Your task to perform on an android device: turn on priority inbox in the gmail app Image 0: 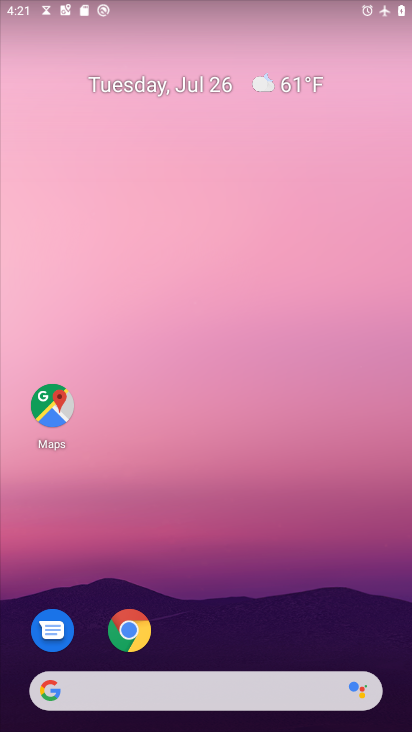
Step 0: drag from (277, 551) to (238, 230)
Your task to perform on an android device: turn on priority inbox in the gmail app Image 1: 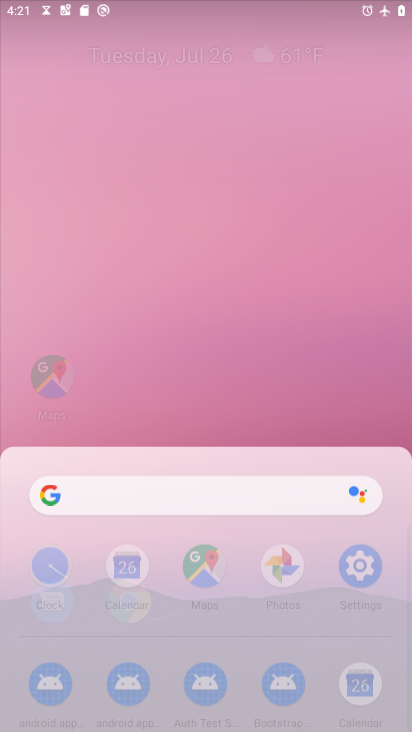
Step 1: drag from (234, 558) to (234, 142)
Your task to perform on an android device: turn on priority inbox in the gmail app Image 2: 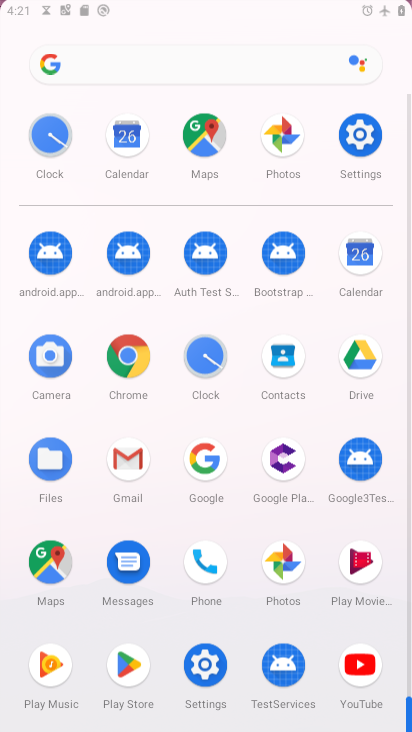
Step 2: drag from (229, 512) to (227, 62)
Your task to perform on an android device: turn on priority inbox in the gmail app Image 3: 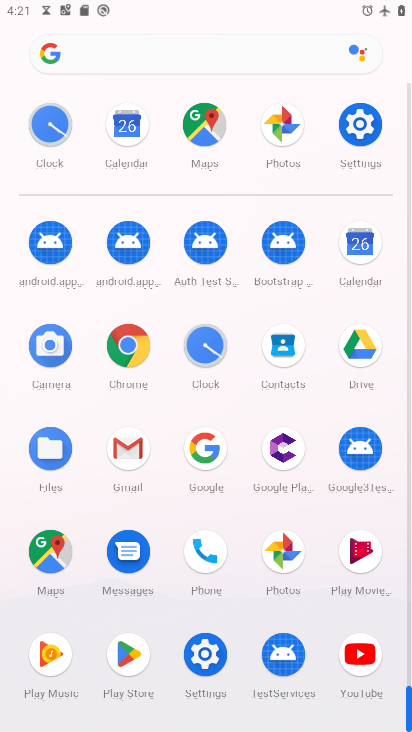
Step 3: click (114, 449)
Your task to perform on an android device: turn on priority inbox in the gmail app Image 4: 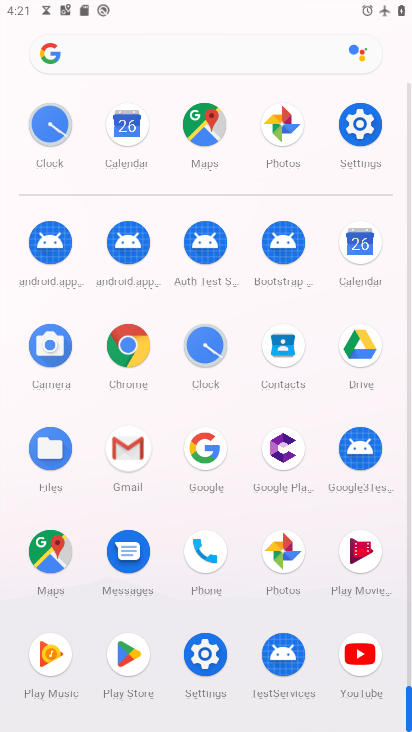
Step 4: click (114, 451)
Your task to perform on an android device: turn on priority inbox in the gmail app Image 5: 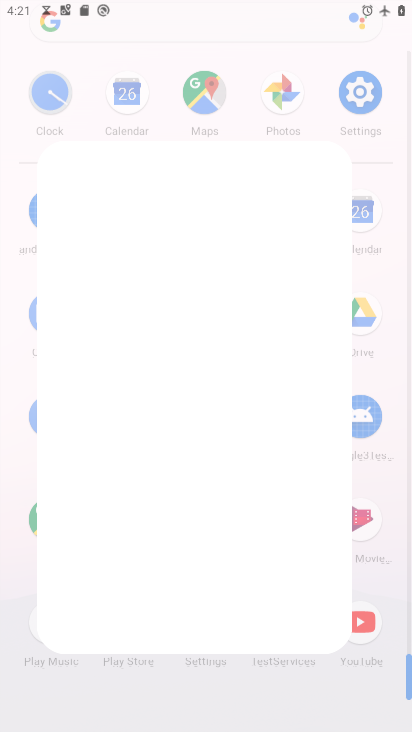
Step 5: click (115, 453)
Your task to perform on an android device: turn on priority inbox in the gmail app Image 6: 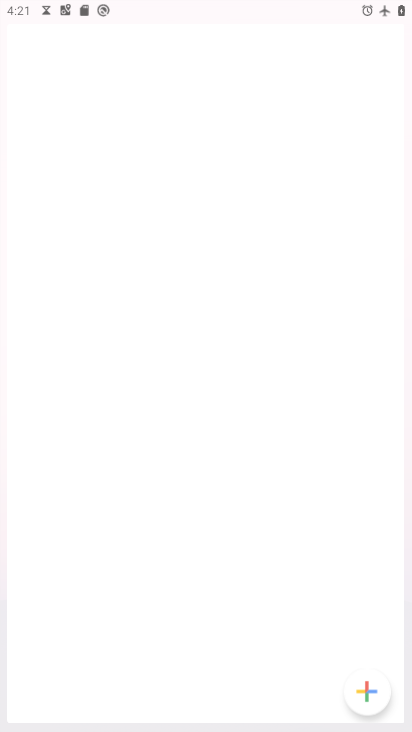
Step 6: click (117, 451)
Your task to perform on an android device: turn on priority inbox in the gmail app Image 7: 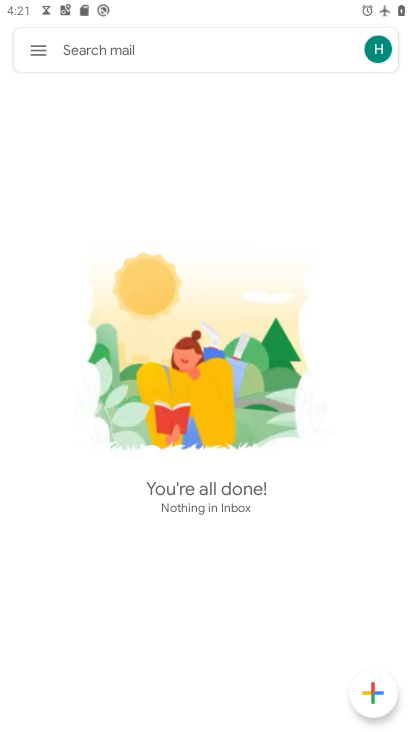
Step 7: click (42, 55)
Your task to perform on an android device: turn on priority inbox in the gmail app Image 8: 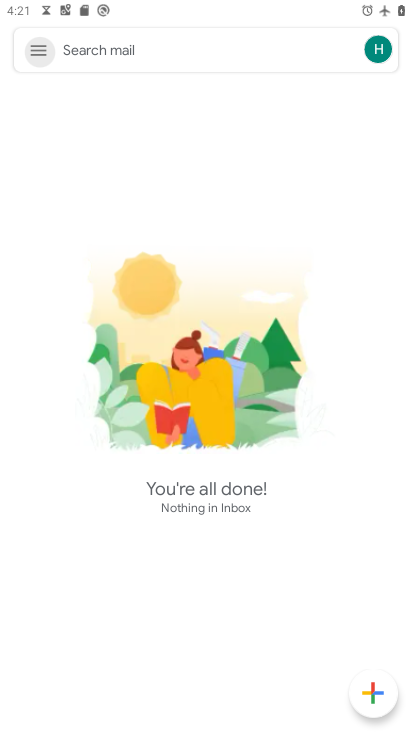
Step 8: click (41, 55)
Your task to perform on an android device: turn on priority inbox in the gmail app Image 9: 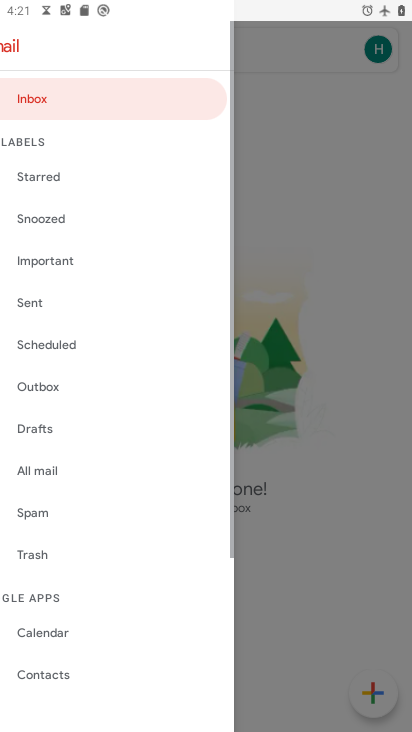
Step 9: click (41, 55)
Your task to perform on an android device: turn on priority inbox in the gmail app Image 10: 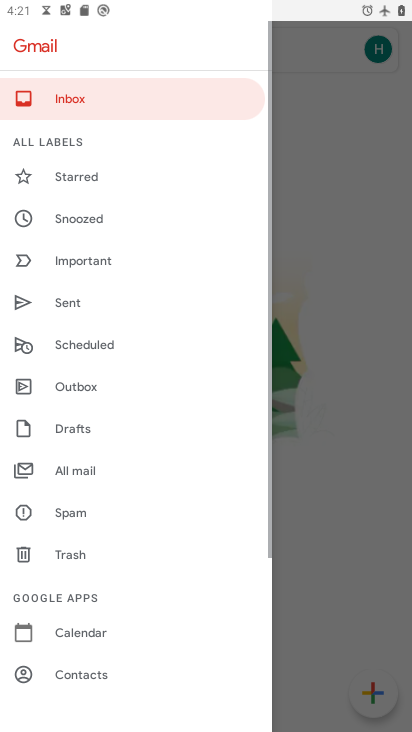
Step 10: click (42, 55)
Your task to perform on an android device: turn on priority inbox in the gmail app Image 11: 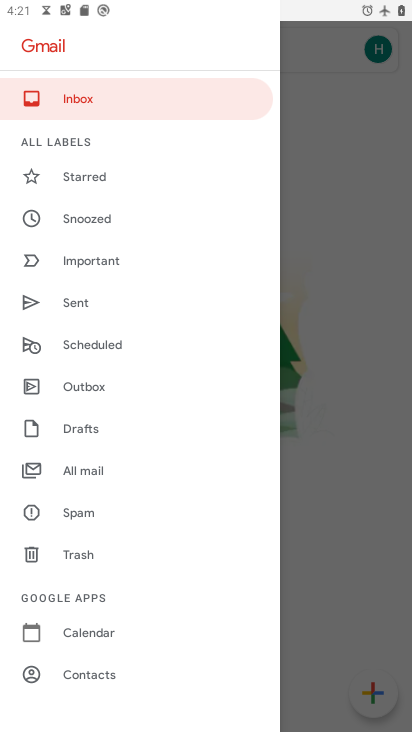
Step 11: drag from (126, 614) to (85, 171)
Your task to perform on an android device: turn on priority inbox in the gmail app Image 12: 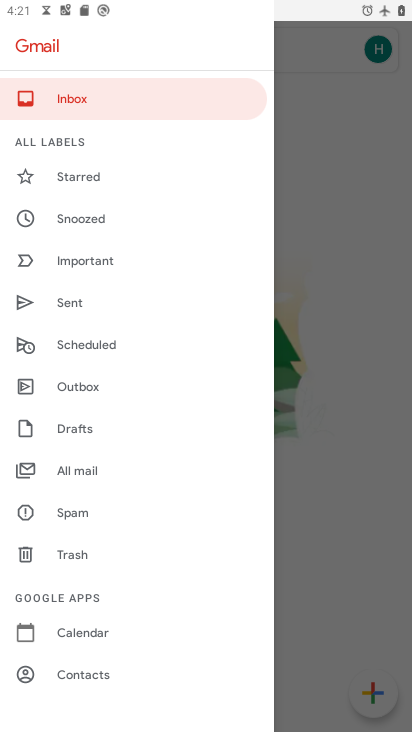
Step 12: drag from (120, 484) to (117, 221)
Your task to perform on an android device: turn on priority inbox in the gmail app Image 13: 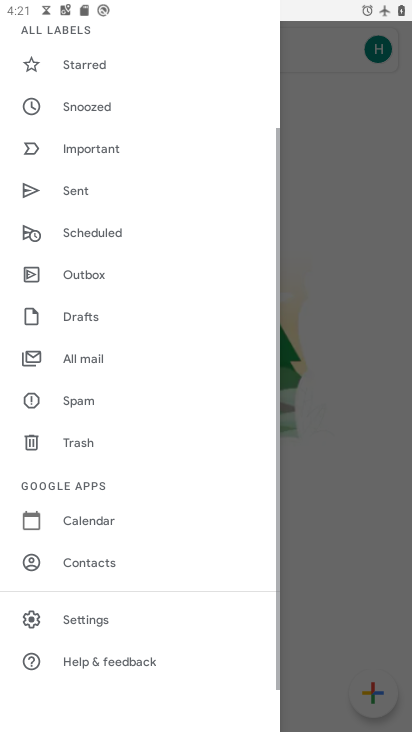
Step 13: drag from (151, 365) to (151, 117)
Your task to perform on an android device: turn on priority inbox in the gmail app Image 14: 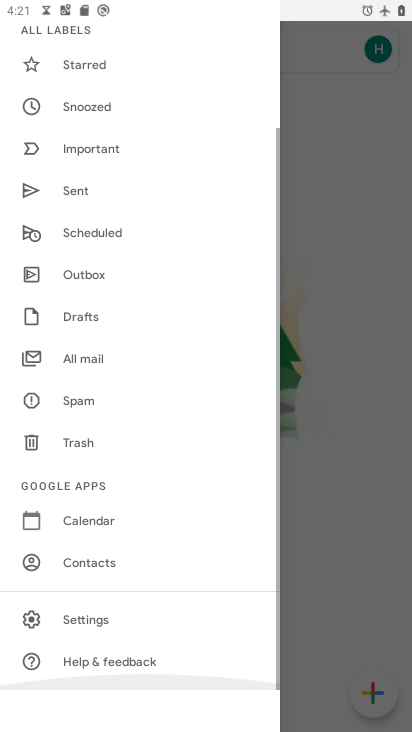
Step 14: drag from (136, 494) to (143, 185)
Your task to perform on an android device: turn on priority inbox in the gmail app Image 15: 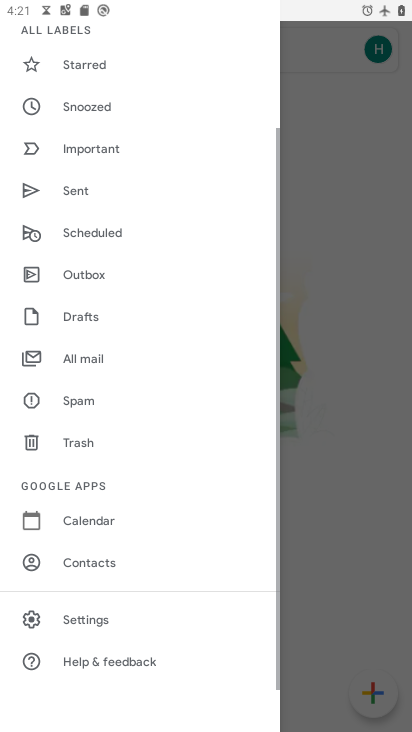
Step 15: click (86, 605)
Your task to perform on an android device: turn on priority inbox in the gmail app Image 16: 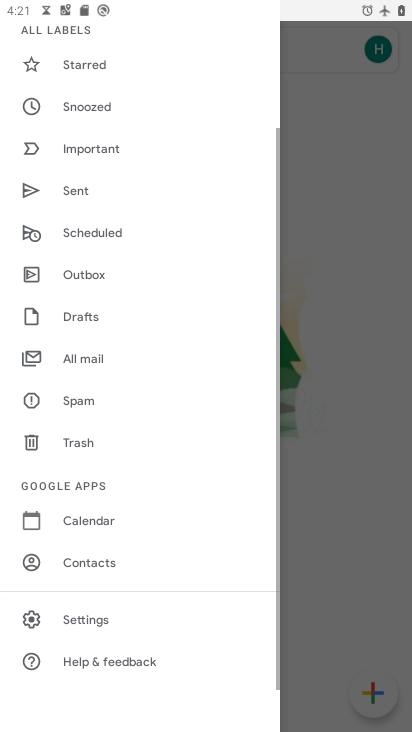
Step 16: click (81, 611)
Your task to perform on an android device: turn on priority inbox in the gmail app Image 17: 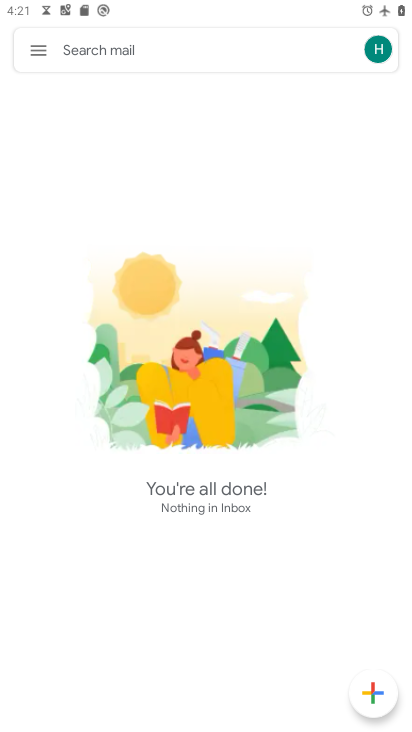
Step 17: click (81, 611)
Your task to perform on an android device: turn on priority inbox in the gmail app Image 18: 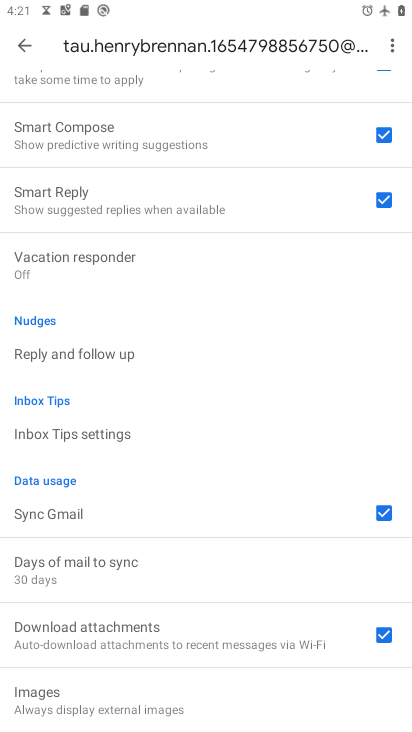
Step 18: drag from (194, 505) to (163, 182)
Your task to perform on an android device: turn on priority inbox in the gmail app Image 19: 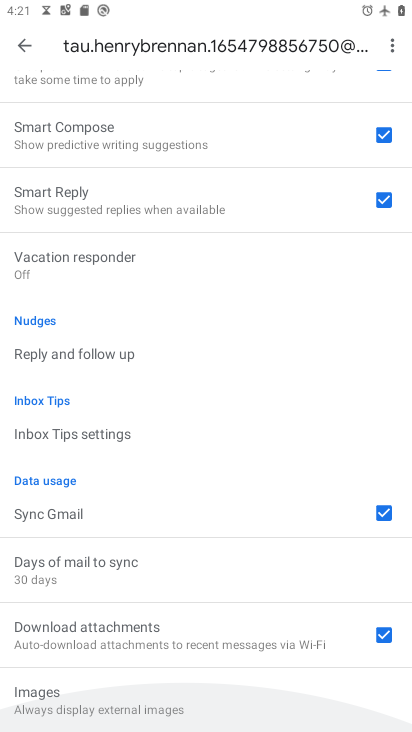
Step 19: drag from (187, 465) to (167, 320)
Your task to perform on an android device: turn on priority inbox in the gmail app Image 20: 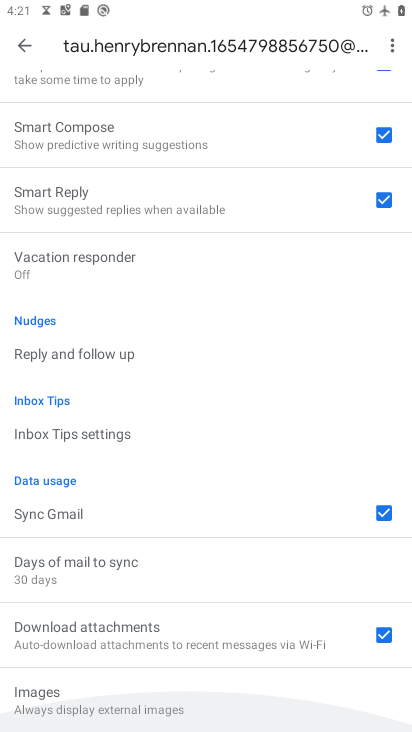
Step 20: drag from (158, 422) to (139, 207)
Your task to perform on an android device: turn on priority inbox in the gmail app Image 21: 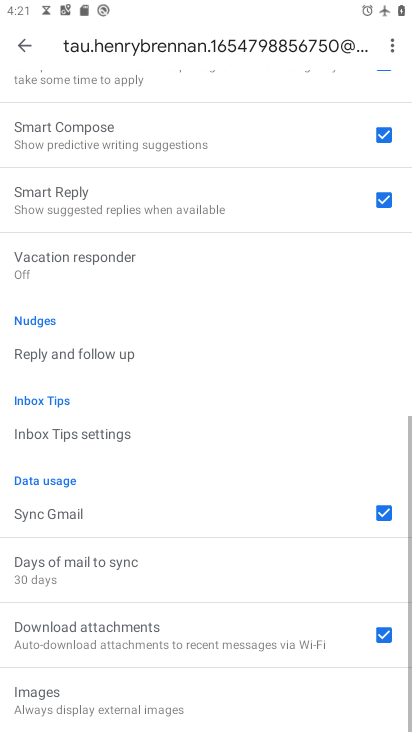
Step 21: drag from (214, 614) to (234, 248)
Your task to perform on an android device: turn on priority inbox in the gmail app Image 22: 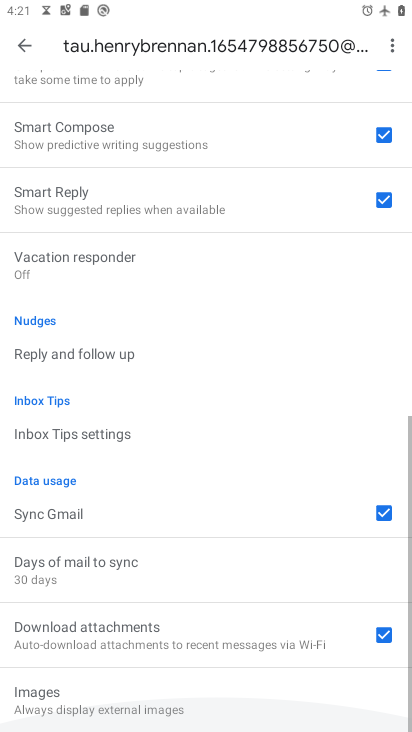
Step 22: click (228, 220)
Your task to perform on an android device: turn on priority inbox in the gmail app Image 23: 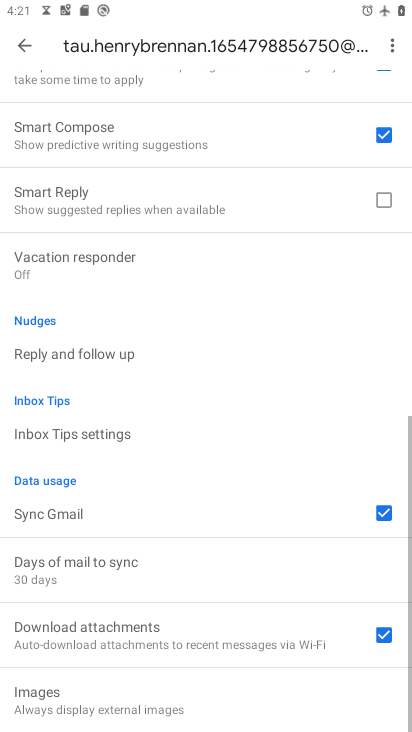
Step 23: drag from (181, 402) to (179, 103)
Your task to perform on an android device: turn on priority inbox in the gmail app Image 24: 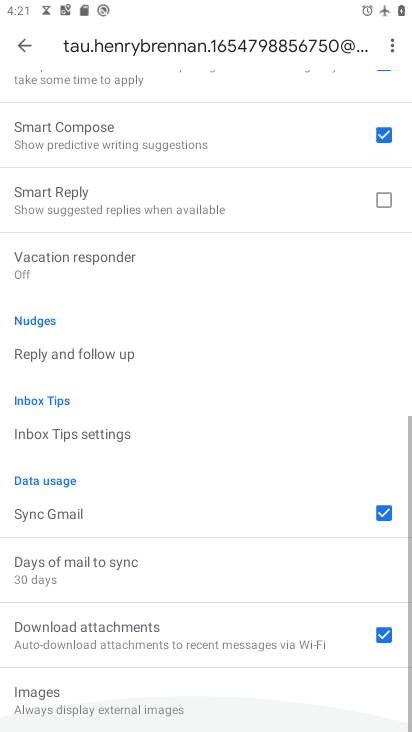
Step 24: drag from (212, 322) to (198, 133)
Your task to perform on an android device: turn on priority inbox in the gmail app Image 25: 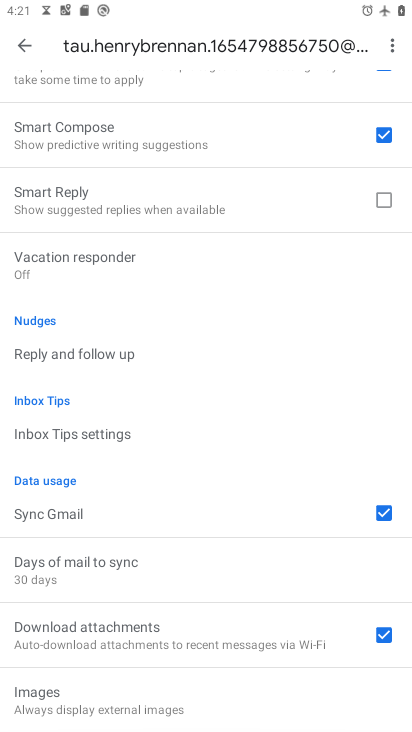
Step 25: drag from (264, 462) to (216, 63)
Your task to perform on an android device: turn on priority inbox in the gmail app Image 26: 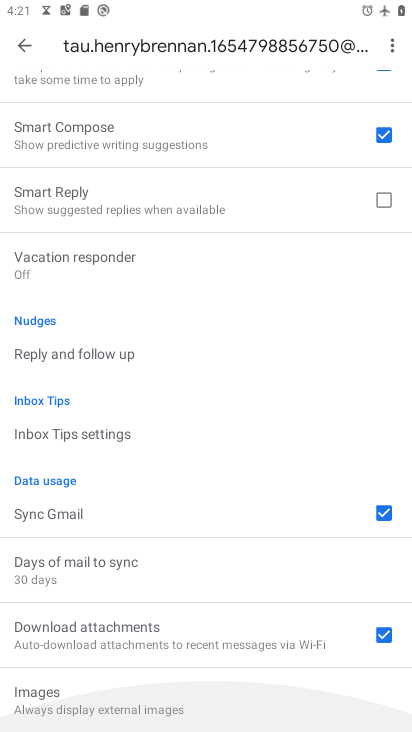
Step 26: drag from (207, 426) to (177, 93)
Your task to perform on an android device: turn on priority inbox in the gmail app Image 27: 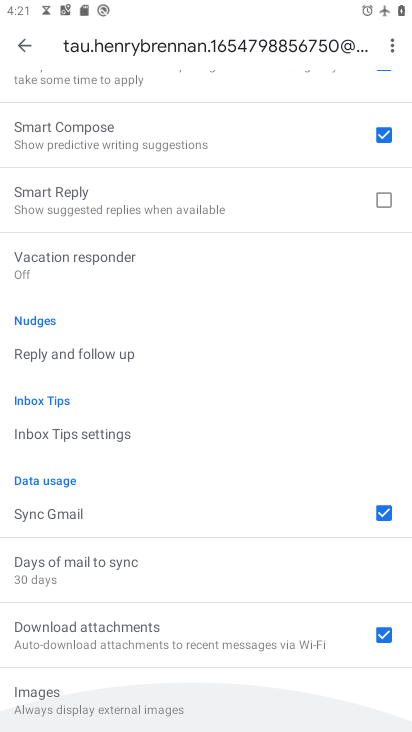
Step 27: drag from (200, 390) to (191, 91)
Your task to perform on an android device: turn on priority inbox in the gmail app Image 28: 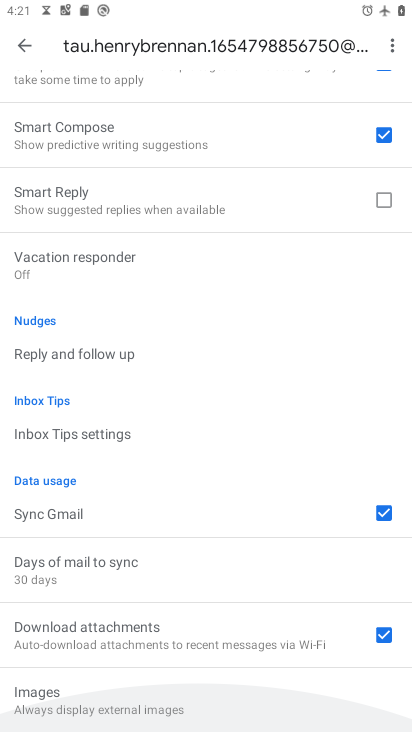
Step 28: drag from (234, 426) to (206, 42)
Your task to perform on an android device: turn on priority inbox in the gmail app Image 29: 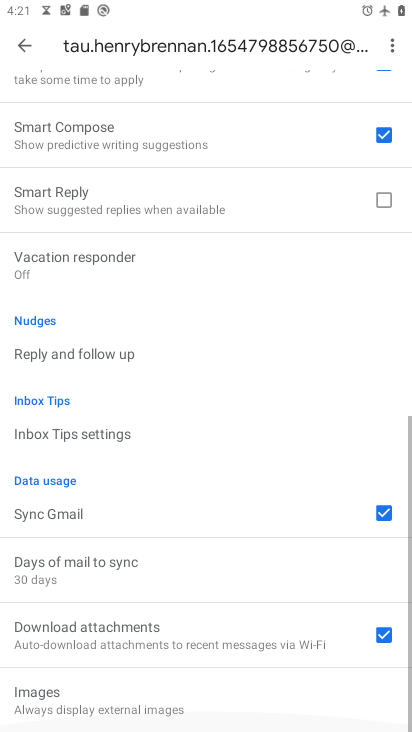
Step 29: click (227, 339)
Your task to perform on an android device: turn on priority inbox in the gmail app Image 30: 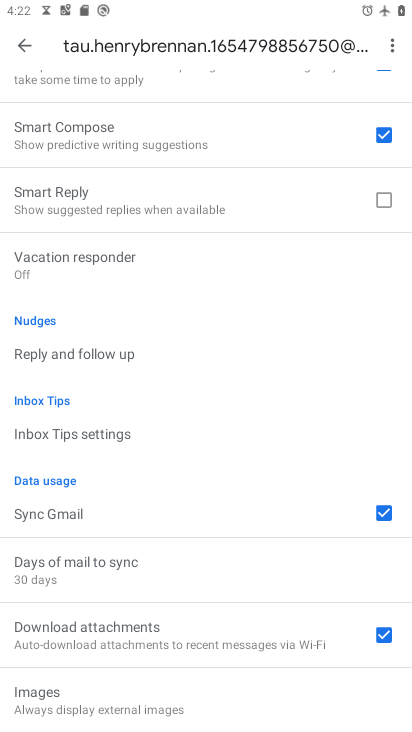
Step 30: drag from (86, 174) to (154, 476)
Your task to perform on an android device: turn on priority inbox in the gmail app Image 31: 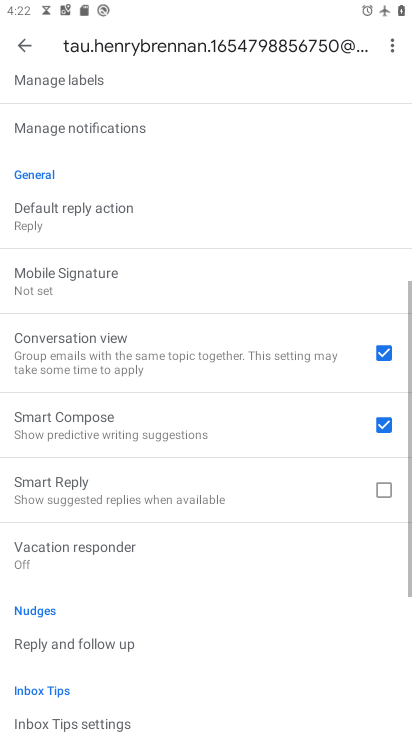
Step 31: drag from (65, 175) to (65, 549)
Your task to perform on an android device: turn on priority inbox in the gmail app Image 32: 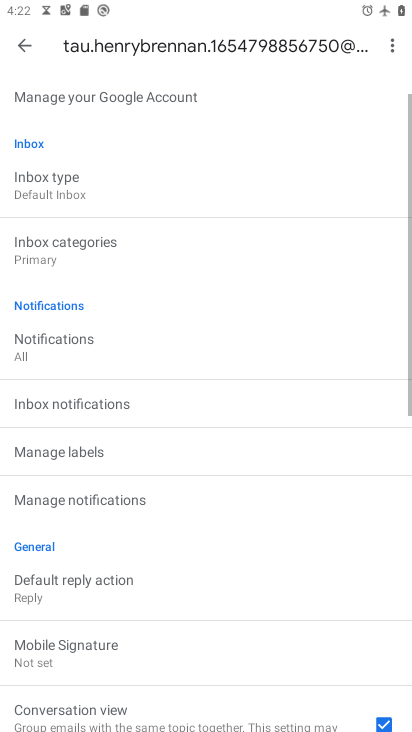
Step 32: drag from (117, 245) to (157, 521)
Your task to perform on an android device: turn on priority inbox in the gmail app Image 33: 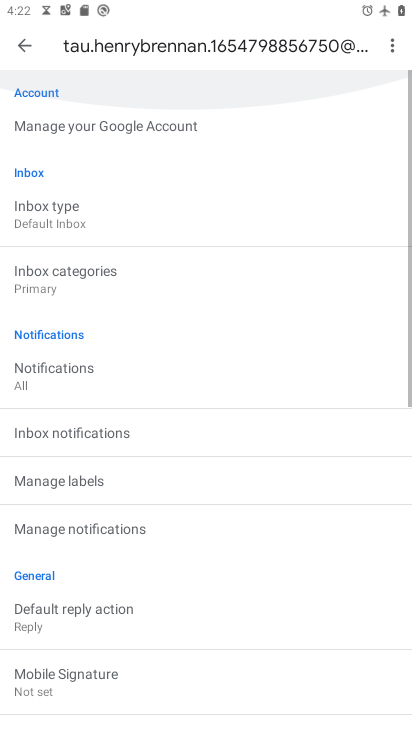
Step 33: drag from (152, 246) to (143, 587)
Your task to perform on an android device: turn on priority inbox in the gmail app Image 34: 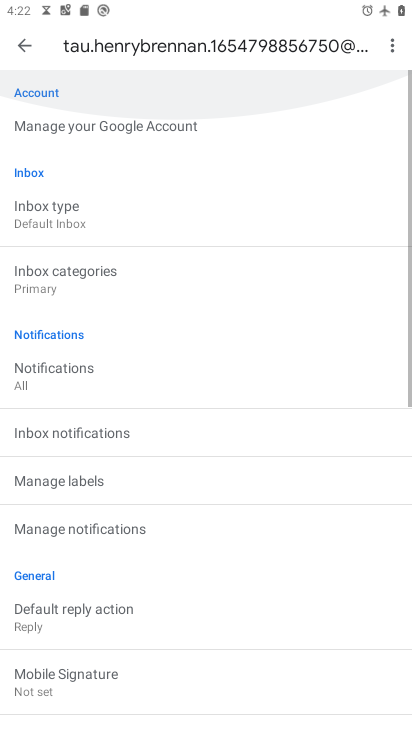
Step 34: drag from (118, 273) to (118, 519)
Your task to perform on an android device: turn on priority inbox in the gmail app Image 35: 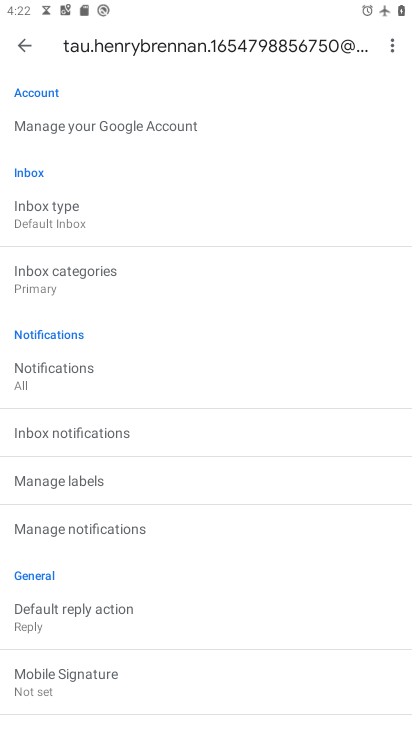
Step 35: click (44, 218)
Your task to perform on an android device: turn on priority inbox in the gmail app Image 36: 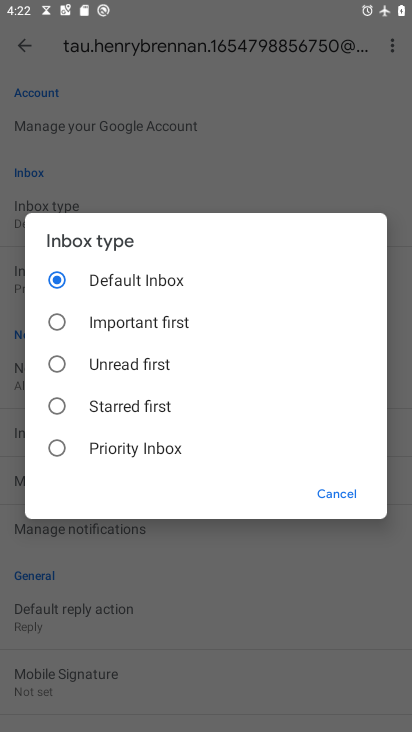
Step 36: click (52, 450)
Your task to perform on an android device: turn on priority inbox in the gmail app Image 37: 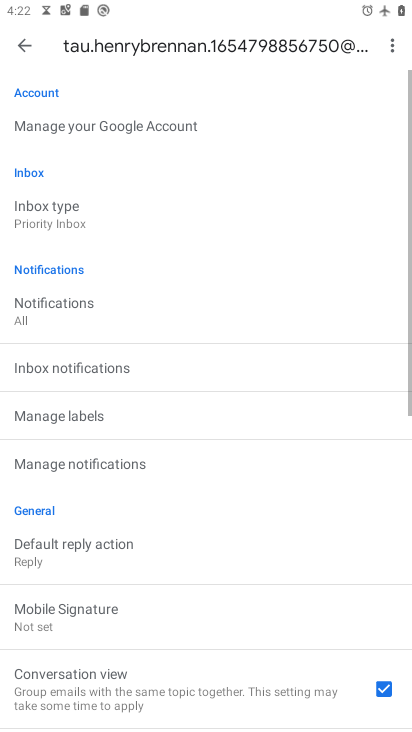
Step 37: click (53, 450)
Your task to perform on an android device: turn on priority inbox in the gmail app Image 38: 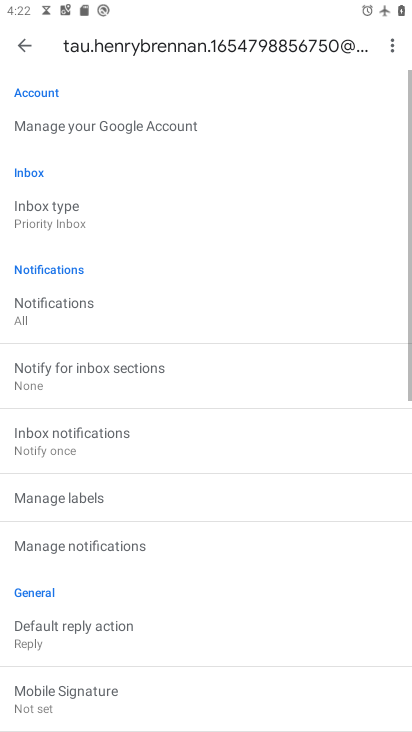
Step 38: click (54, 451)
Your task to perform on an android device: turn on priority inbox in the gmail app Image 39: 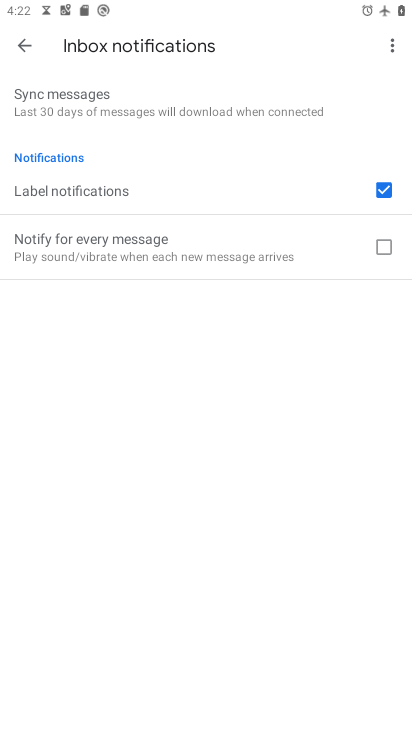
Step 39: click (17, 36)
Your task to perform on an android device: turn on priority inbox in the gmail app Image 40: 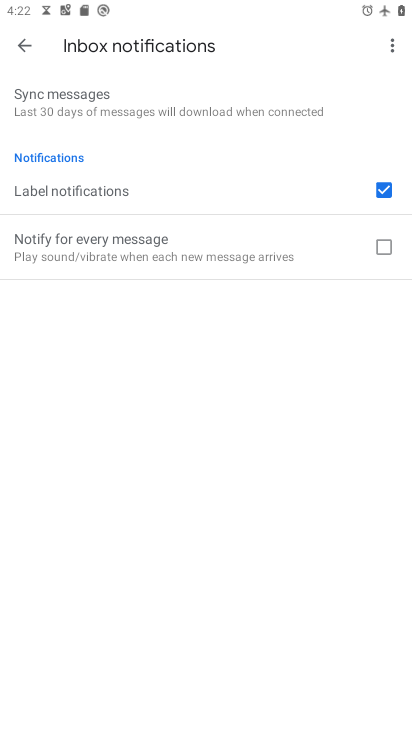
Step 40: click (19, 35)
Your task to perform on an android device: turn on priority inbox in the gmail app Image 41: 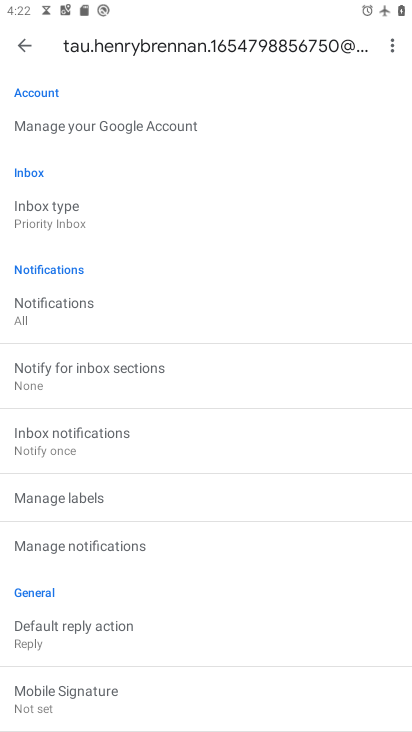
Step 41: task complete